Your task to perform on an android device: move an email to a new category in the gmail app Image 0: 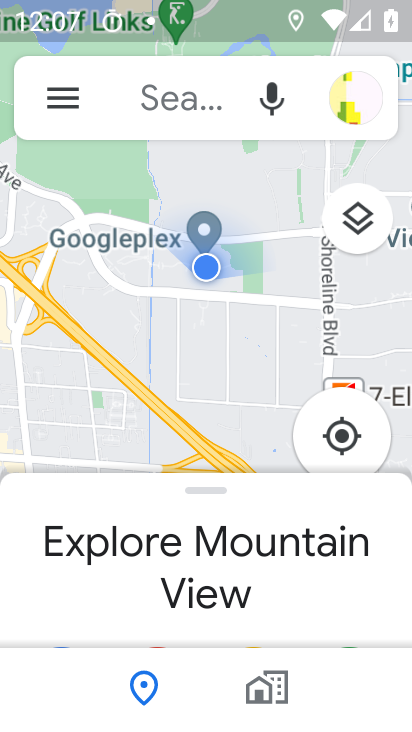
Step 0: press home button
Your task to perform on an android device: move an email to a new category in the gmail app Image 1: 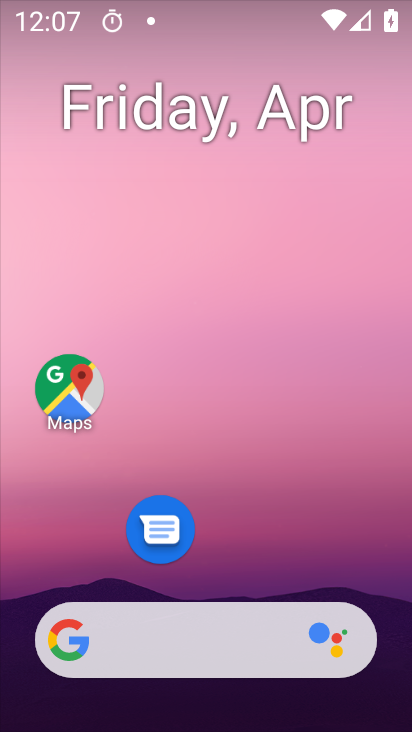
Step 1: drag from (236, 562) to (241, 276)
Your task to perform on an android device: move an email to a new category in the gmail app Image 2: 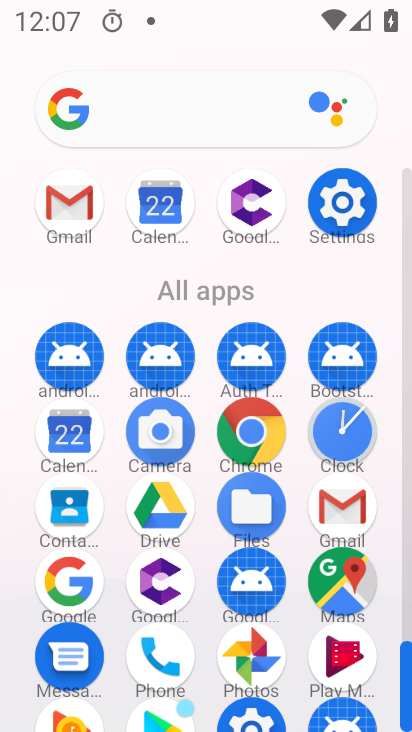
Step 2: click (344, 503)
Your task to perform on an android device: move an email to a new category in the gmail app Image 3: 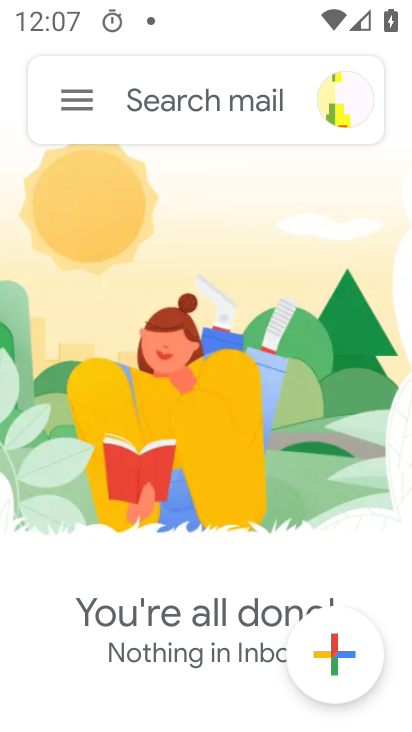
Step 3: click (81, 97)
Your task to perform on an android device: move an email to a new category in the gmail app Image 4: 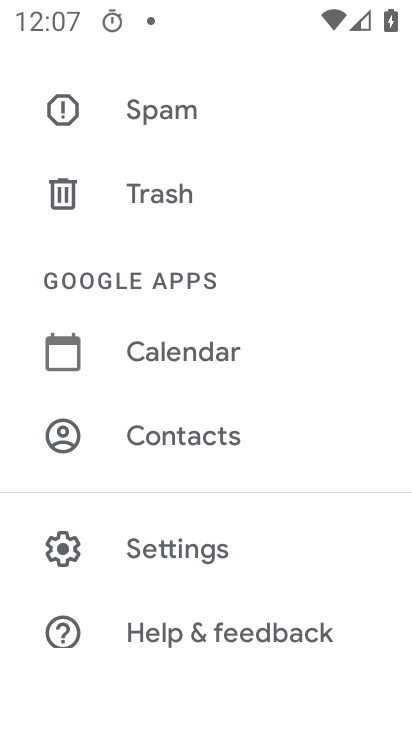
Step 4: drag from (231, 257) to (182, 669)
Your task to perform on an android device: move an email to a new category in the gmail app Image 5: 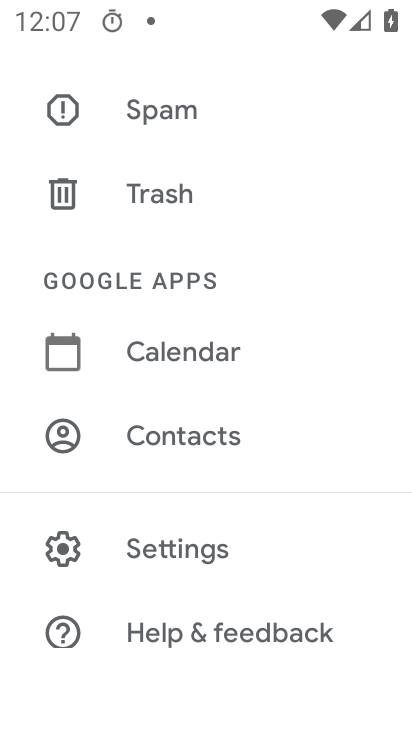
Step 5: drag from (262, 318) to (241, 670)
Your task to perform on an android device: move an email to a new category in the gmail app Image 6: 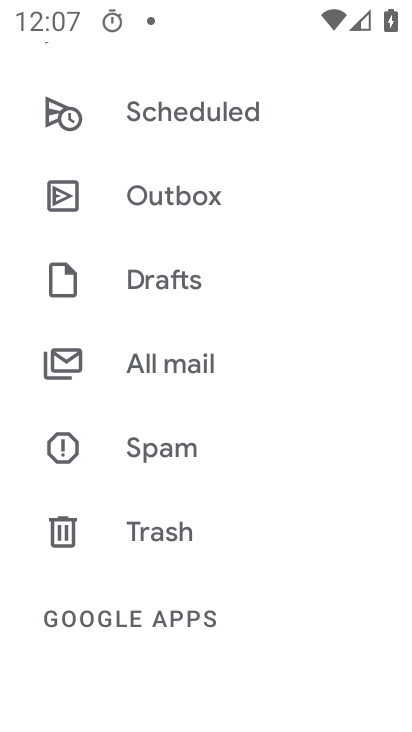
Step 6: click (174, 373)
Your task to perform on an android device: move an email to a new category in the gmail app Image 7: 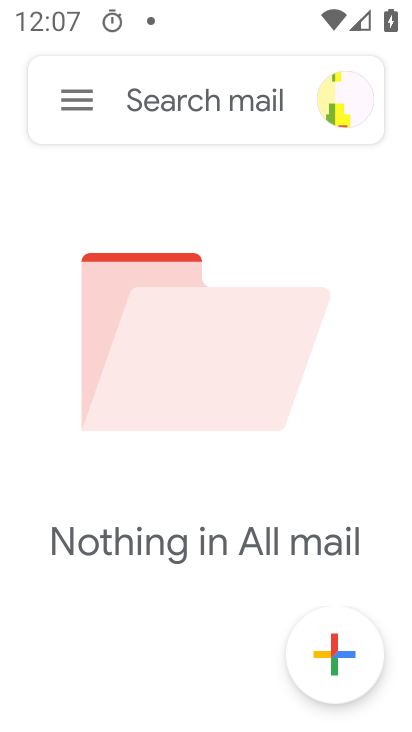
Step 7: task complete